Your task to perform on an android device: Open Google Chrome Image 0: 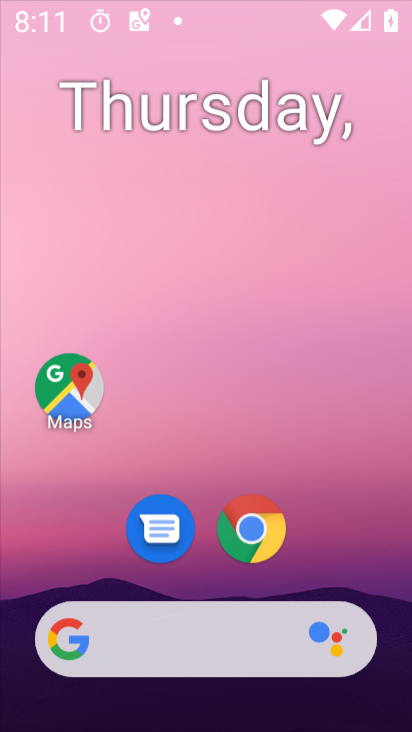
Step 0: drag from (391, 30) to (357, 4)
Your task to perform on an android device: Open Google Chrome Image 1: 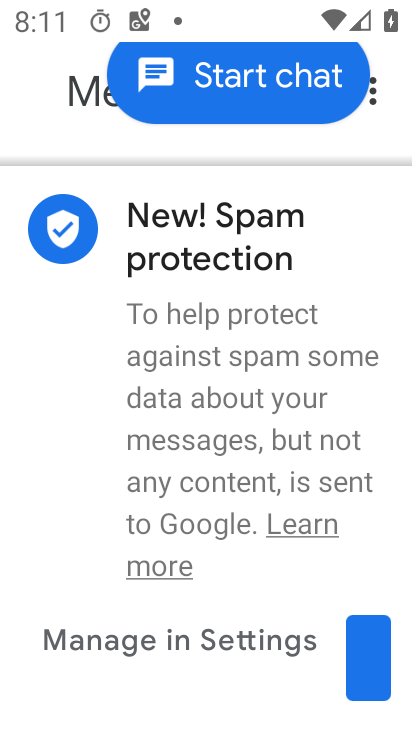
Step 1: press home button
Your task to perform on an android device: Open Google Chrome Image 2: 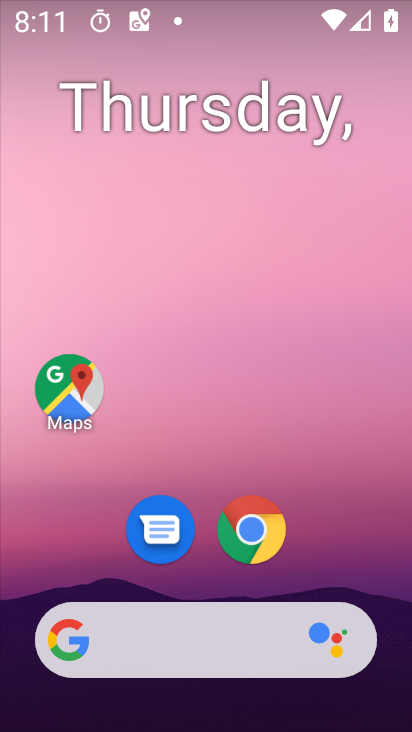
Step 2: click (239, 531)
Your task to perform on an android device: Open Google Chrome Image 3: 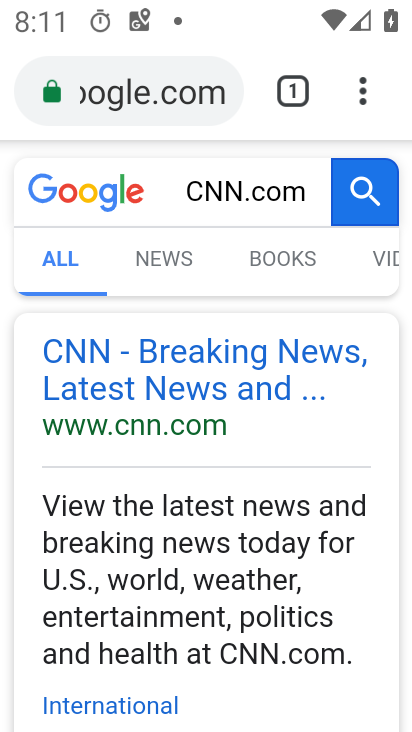
Step 3: task complete